Your task to perform on an android device: Open the web browser Image 0: 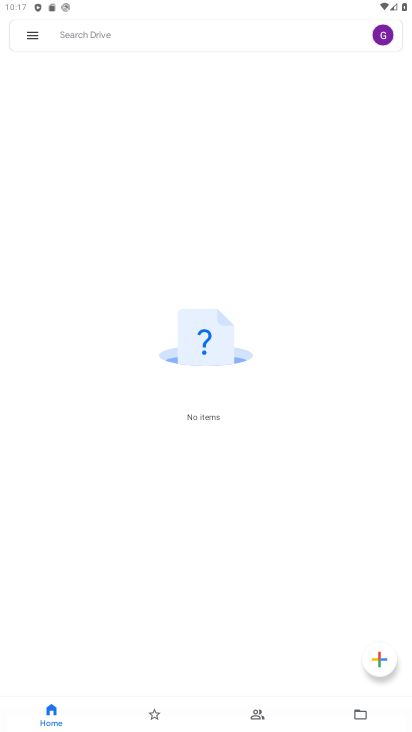
Step 0: press home button
Your task to perform on an android device: Open the web browser Image 1: 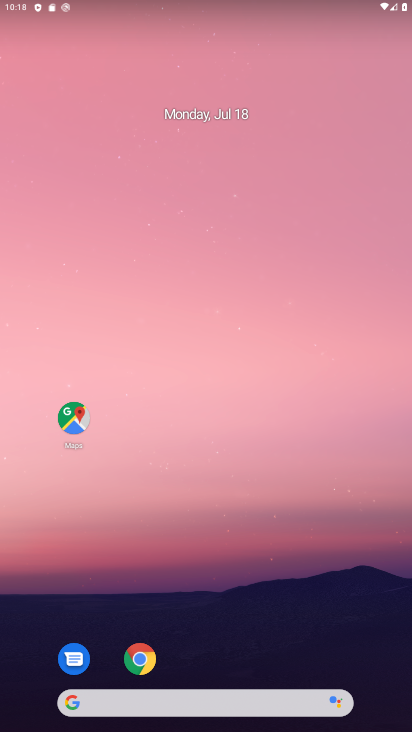
Step 1: click (216, 276)
Your task to perform on an android device: Open the web browser Image 2: 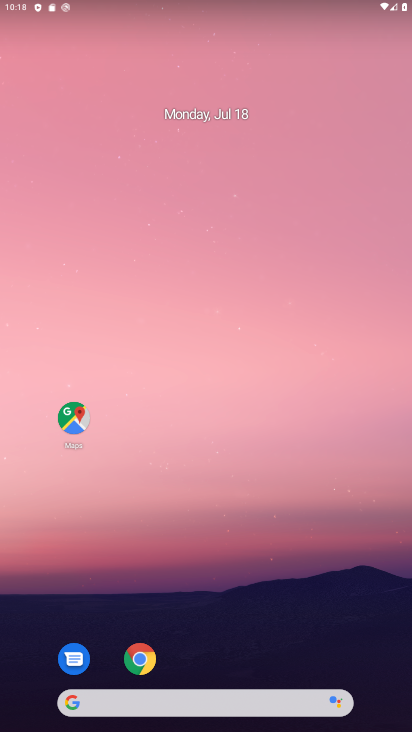
Step 2: drag from (225, 688) to (227, 185)
Your task to perform on an android device: Open the web browser Image 3: 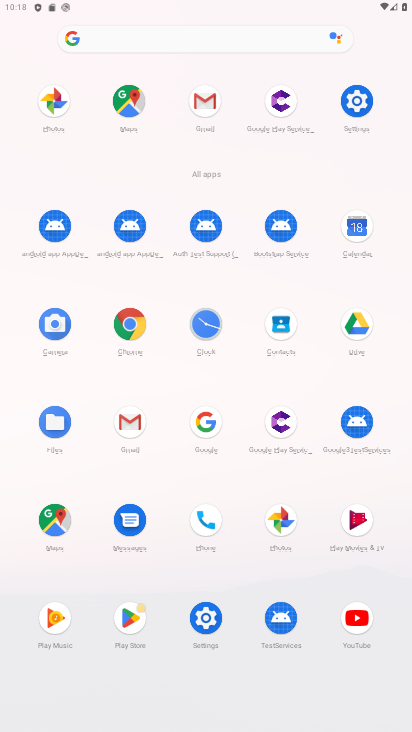
Step 3: click (201, 421)
Your task to perform on an android device: Open the web browser Image 4: 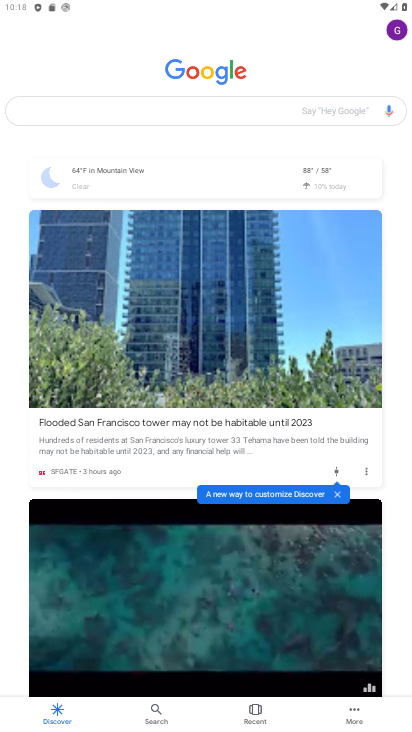
Step 4: task complete